Your task to perform on an android device: What's the news about the US dollar? Image 0: 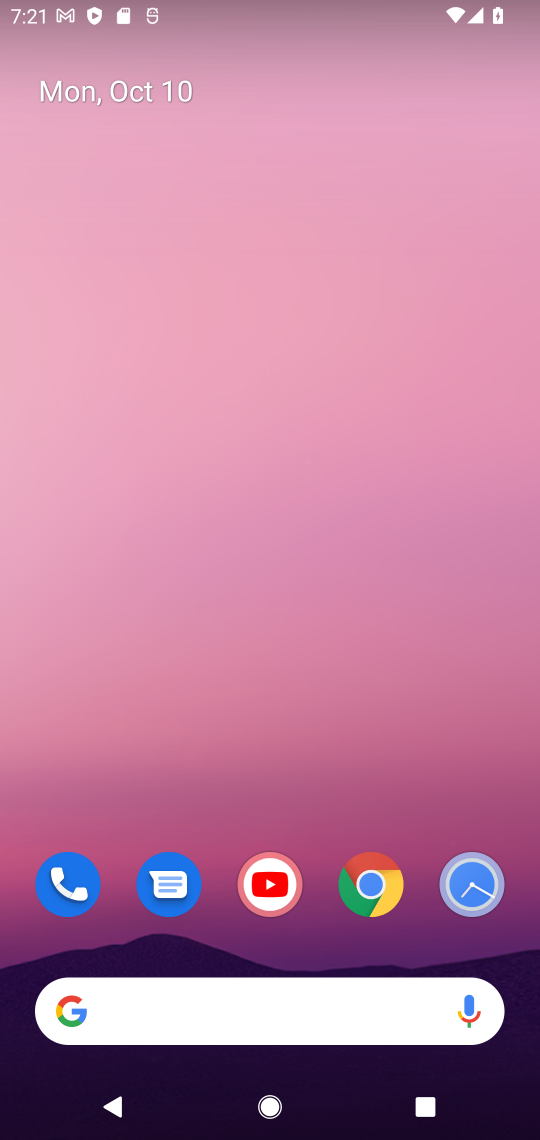
Step 0: click (362, 875)
Your task to perform on an android device: What's the news about the US dollar? Image 1: 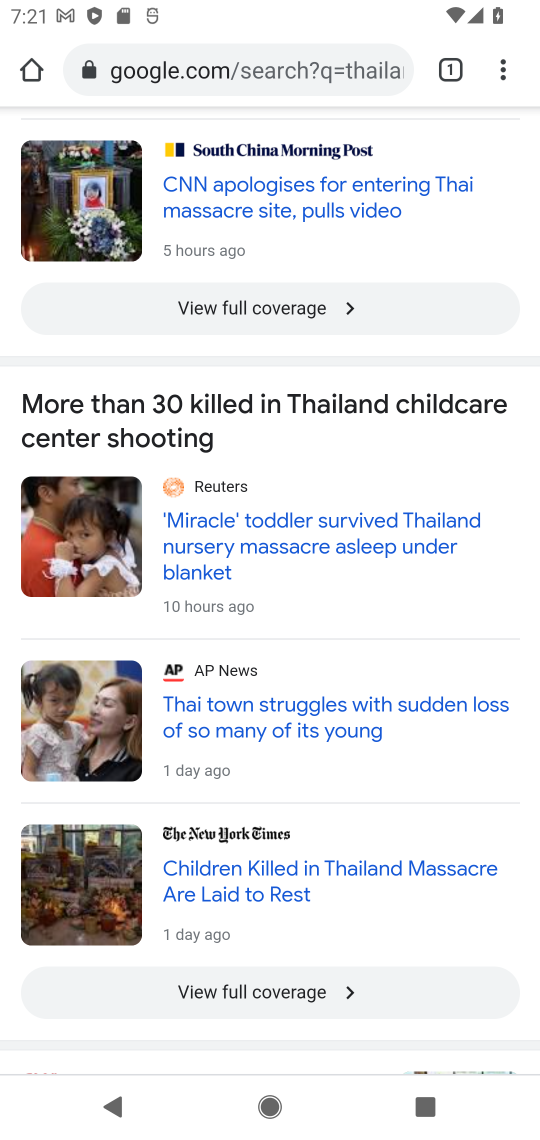
Step 1: click (209, 78)
Your task to perform on an android device: What's the news about the US dollar? Image 2: 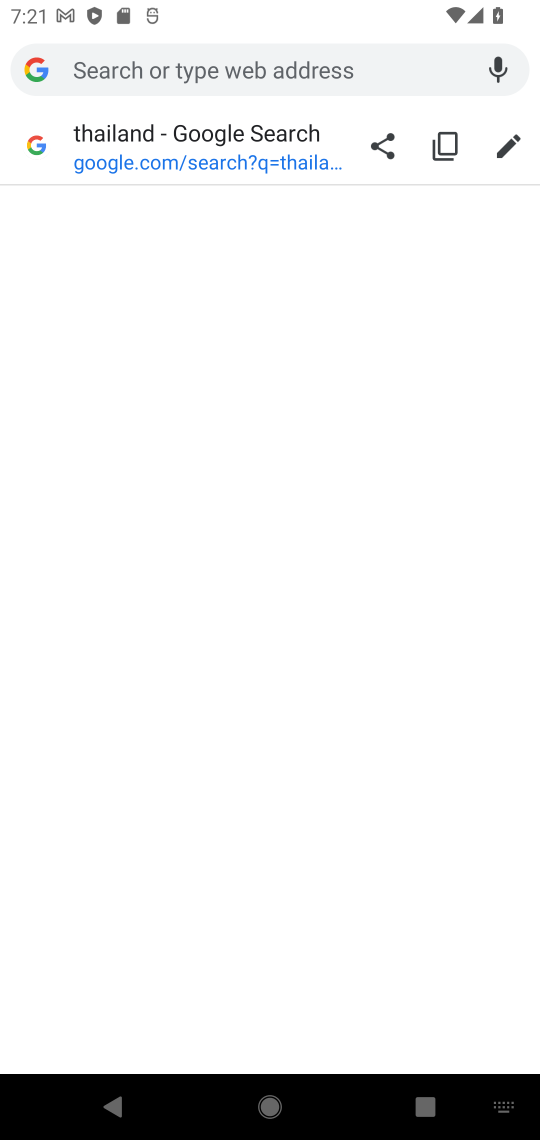
Step 2: type "us dollar"
Your task to perform on an android device: What's the news about the US dollar? Image 3: 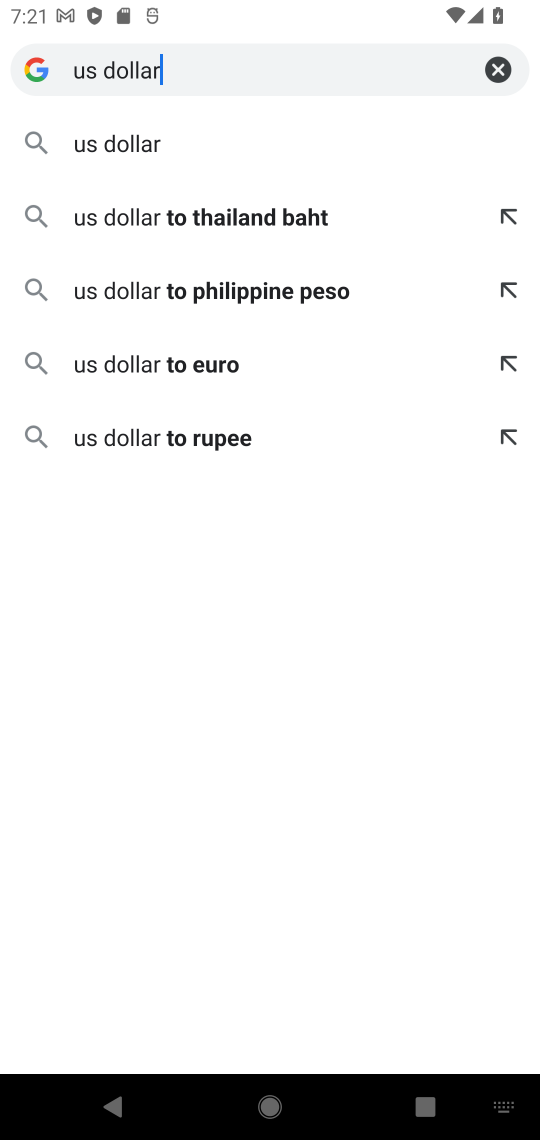
Step 3: click (177, 146)
Your task to perform on an android device: What's the news about the US dollar? Image 4: 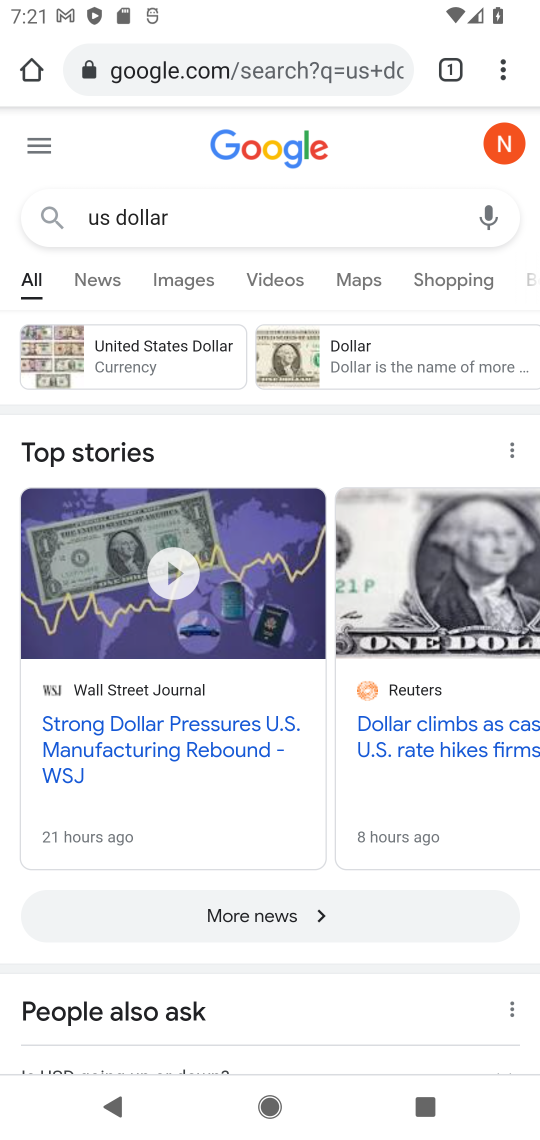
Step 4: click (110, 276)
Your task to perform on an android device: What's the news about the US dollar? Image 5: 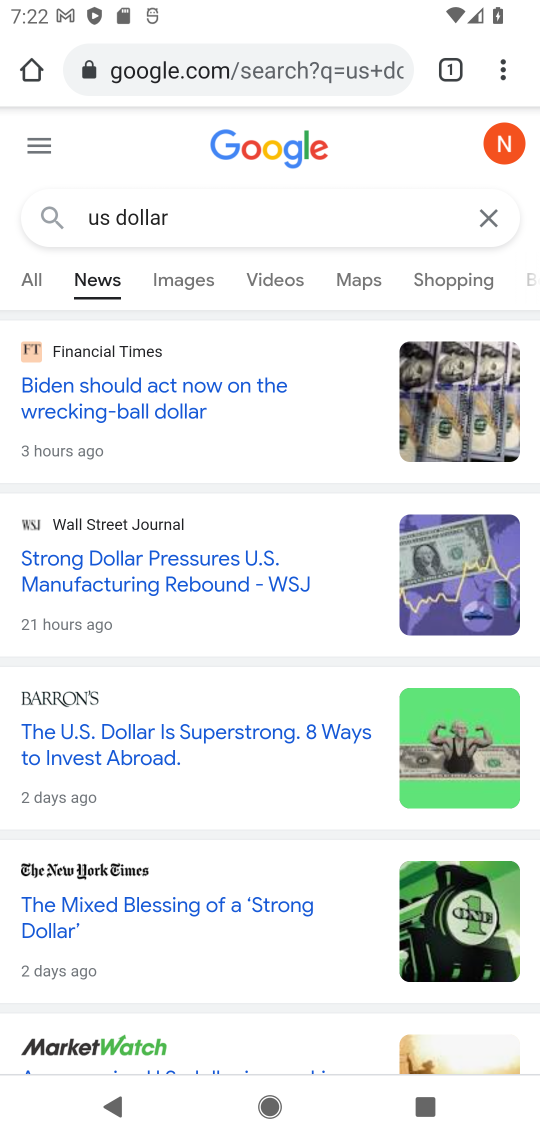
Step 5: task complete